Your task to perform on an android device: toggle notifications settings in the gmail app Image 0: 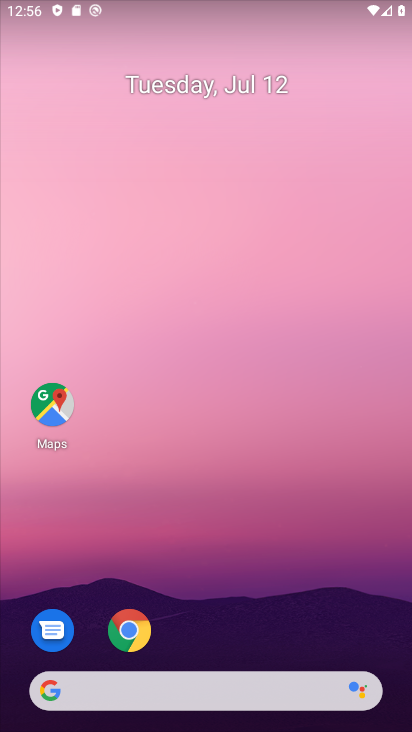
Step 0: drag from (376, 632) to (335, 186)
Your task to perform on an android device: toggle notifications settings in the gmail app Image 1: 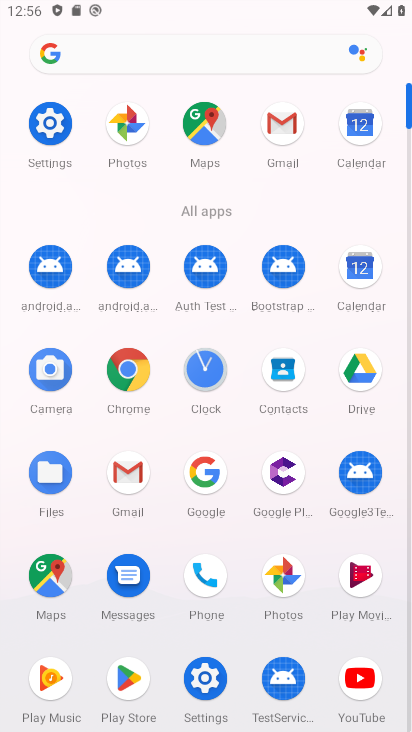
Step 1: click (127, 475)
Your task to perform on an android device: toggle notifications settings in the gmail app Image 2: 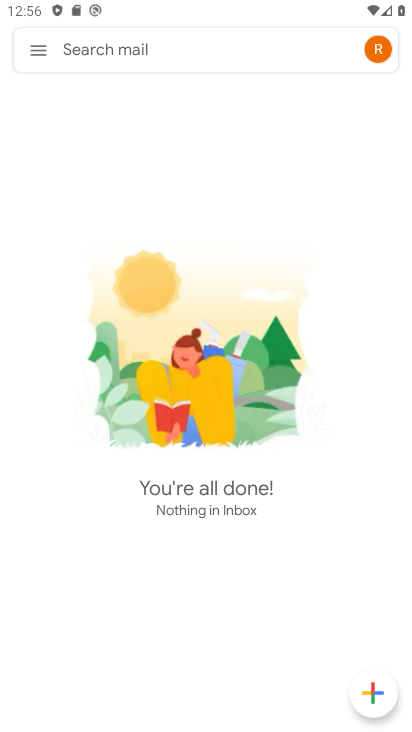
Step 2: click (37, 53)
Your task to perform on an android device: toggle notifications settings in the gmail app Image 3: 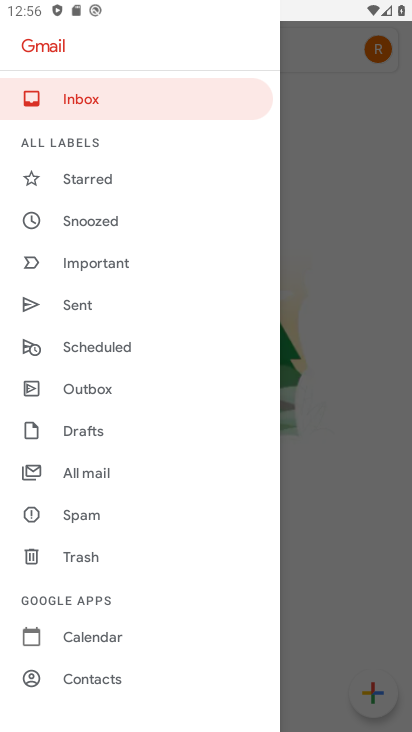
Step 3: drag from (158, 628) to (188, 289)
Your task to perform on an android device: toggle notifications settings in the gmail app Image 4: 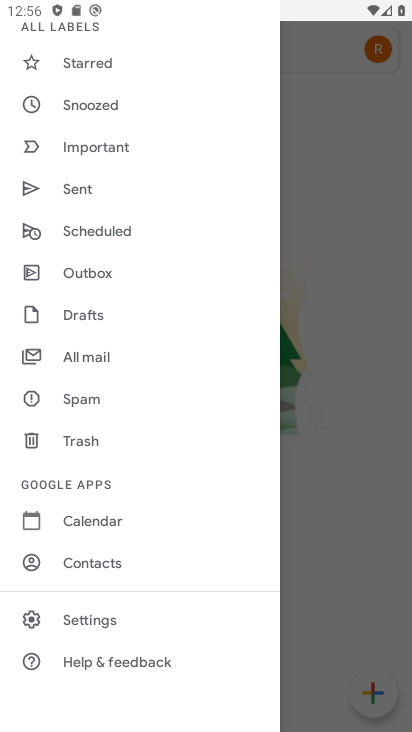
Step 4: click (77, 619)
Your task to perform on an android device: toggle notifications settings in the gmail app Image 5: 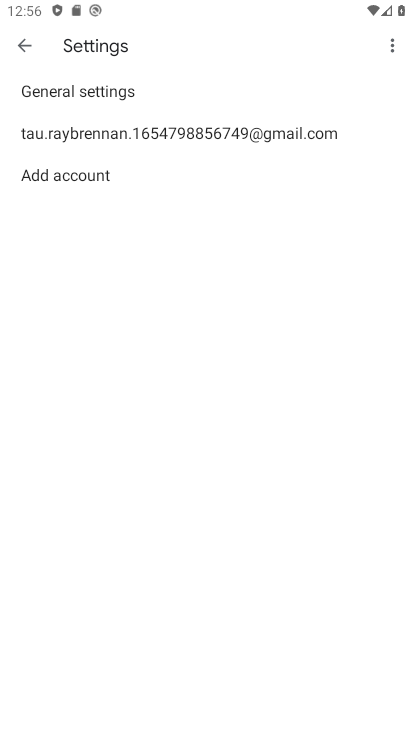
Step 5: click (106, 132)
Your task to perform on an android device: toggle notifications settings in the gmail app Image 6: 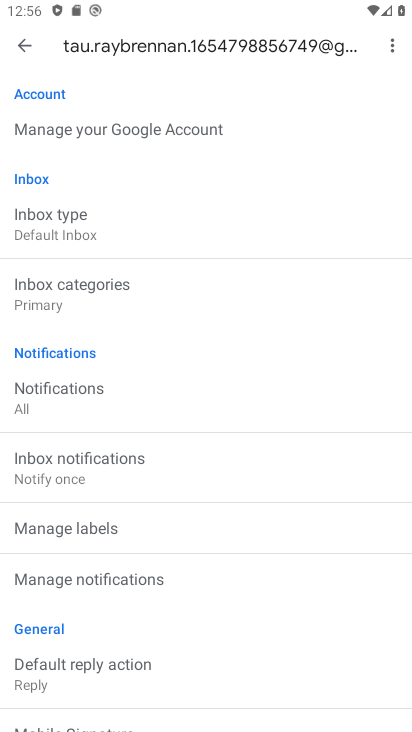
Step 6: click (87, 573)
Your task to perform on an android device: toggle notifications settings in the gmail app Image 7: 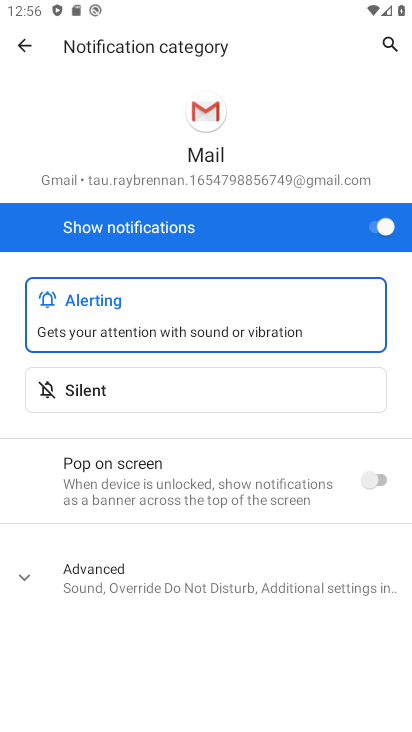
Step 7: click (370, 227)
Your task to perform on an android device: toggle notifications settings in the gmail app Image 8: 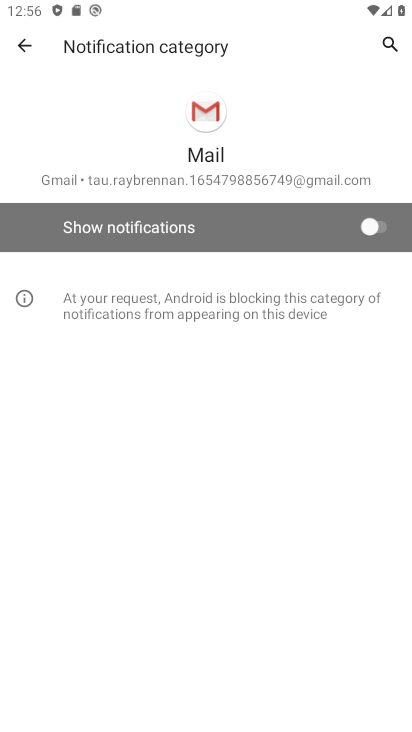
Step 8: task complete